Your task to perform on an android device: see tabs open on other devices in the chrome app Image 0: 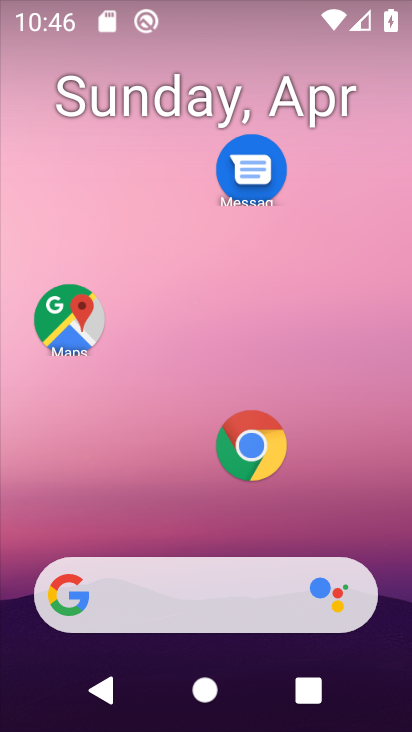
Step 0: press home button
Your task to perform on an android device: see tabs open on other devices in the chrome app Image 1: 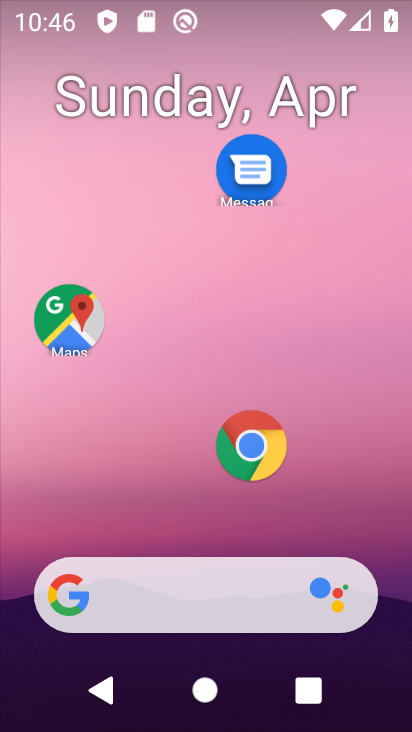
Step 1: drag from (190, 578) to (317, 180)
Your task to perform on an android device: see tabs open on other devices in the chrome app Image 2: 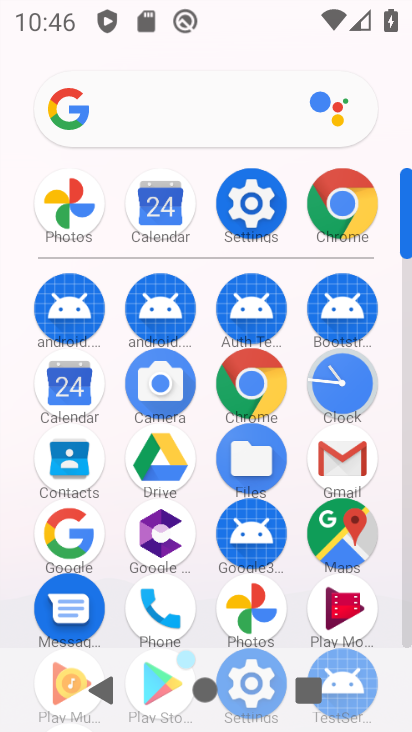
Step 2: click (354, 221)
Your task to perform on an android device: see tabs open on other devices in the chrome app Image 3: 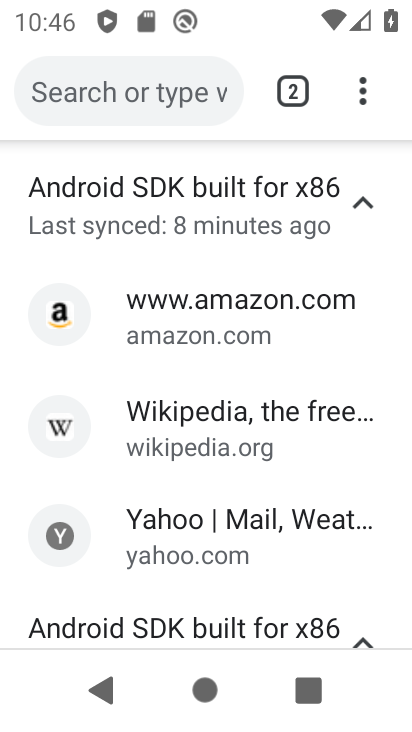
Step 3: task complete